Your task to perform on an android device: turn off picture-in-picture Image 0: 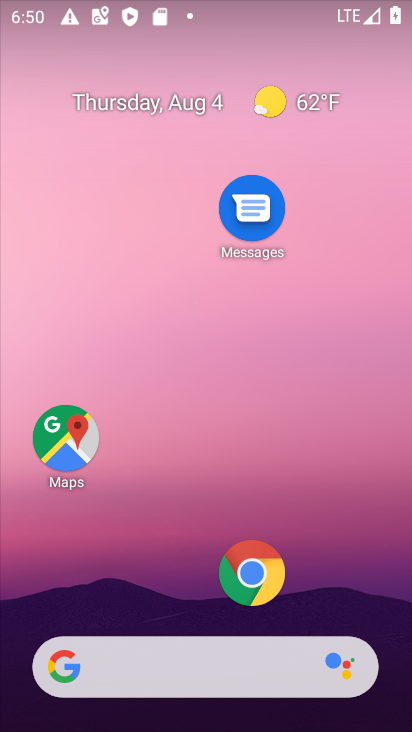
Step 0: press home button
Your task to perform on an android device: turn off picture-in-picture Image 1: 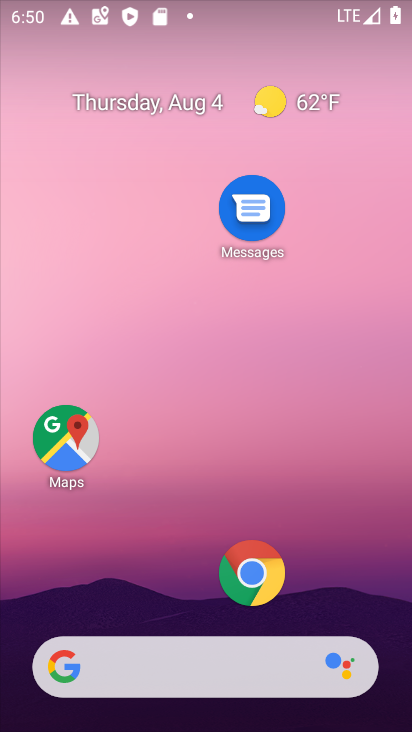
Step 1: click (264, 577)
Your task to perform on an android device: turn off picture-in-picture Image 2: 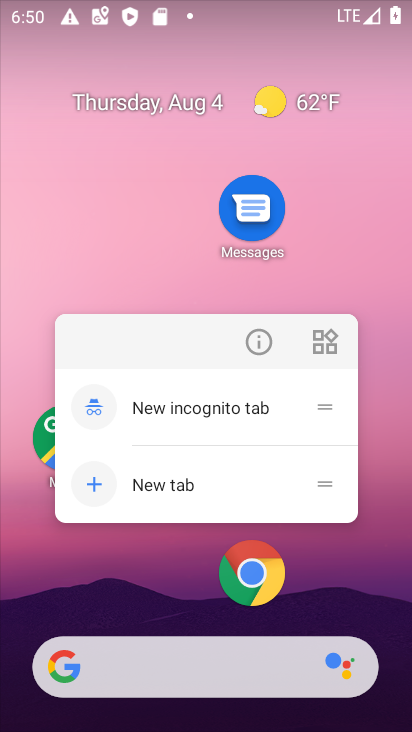
Step 2: click (263, 333)
Your task to perform on an android device: turn off picture-in-picture Image 3: 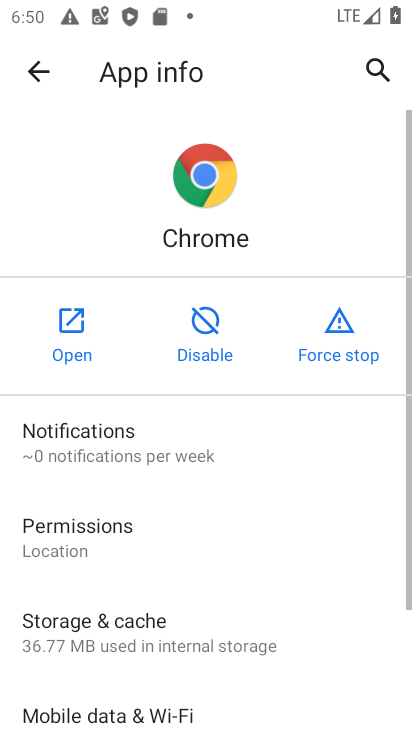
Step 3: drag from (278, 576) to (263, 112)
Your task to perform on an android device: turn off picture-in-picture Image 4: 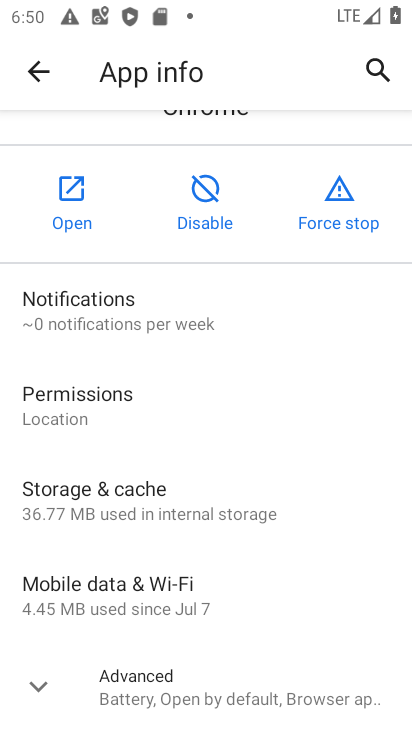
Step 4: click (163, 680)
Your task to perform on an android device: turn off picture-in-picture Image 5: 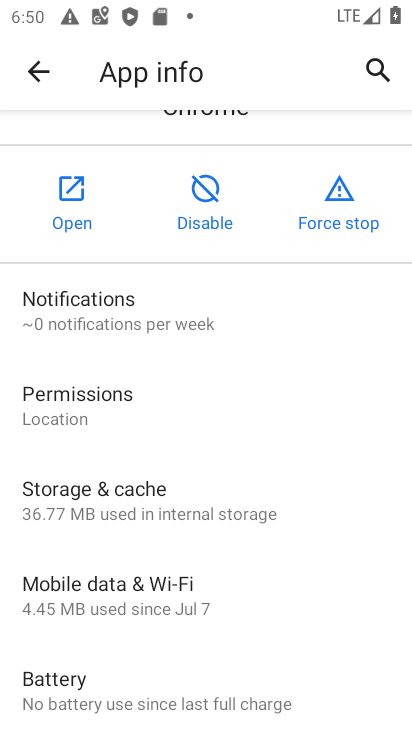
Step 5: drag from (335, 585) to (290, 120)
Your task to perform on an android device: turn off picture-in-picture Image 6: 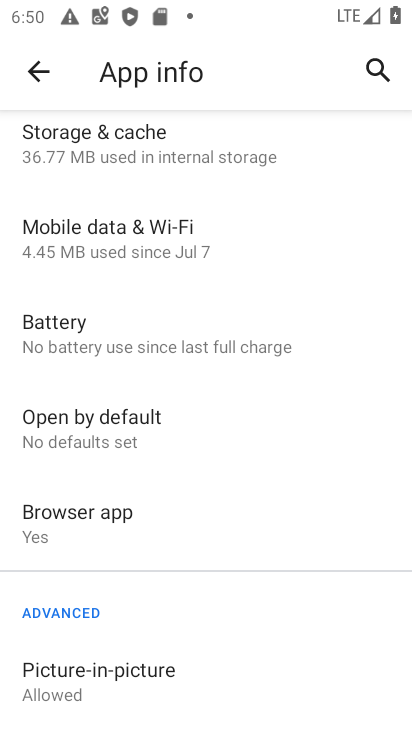
Step 6: click (63, 668)
Your task to perform on an android device: turn off picture-in-picture Image 7: 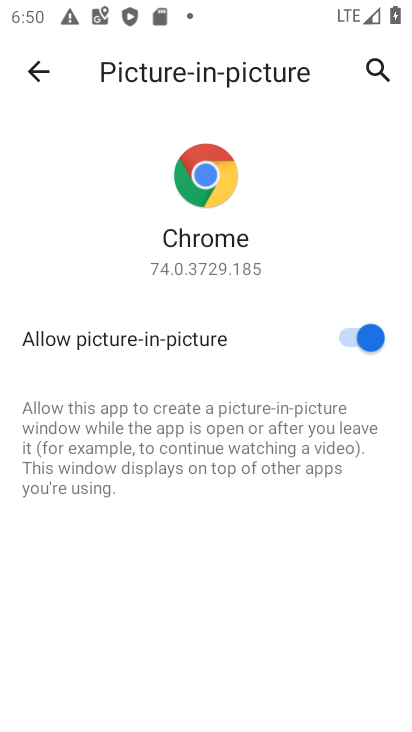
Step 7: click (364, 332)
Your task to perform on an android device: turn off picture-in-picture Image 8: 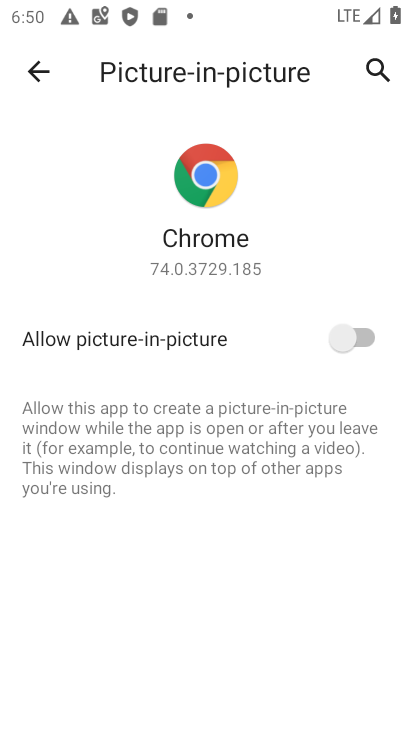
Step 8: task complete